Your task to perform on an android device: Show me popular games on the Play Store Image 0: 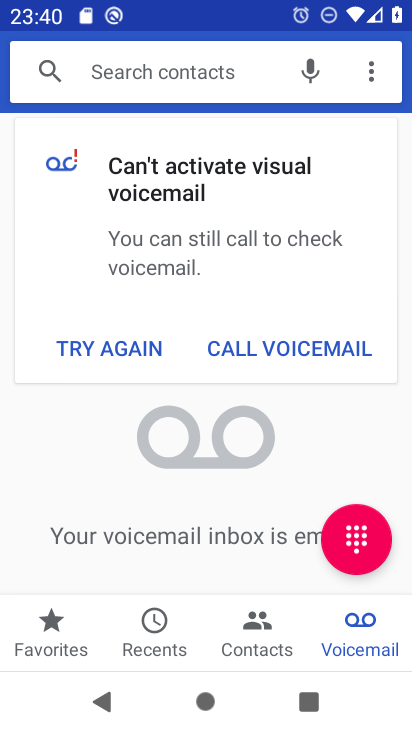
Step 0: press home button
Your task to perform on an android device: Show me popular games on the Play Store Image 1: 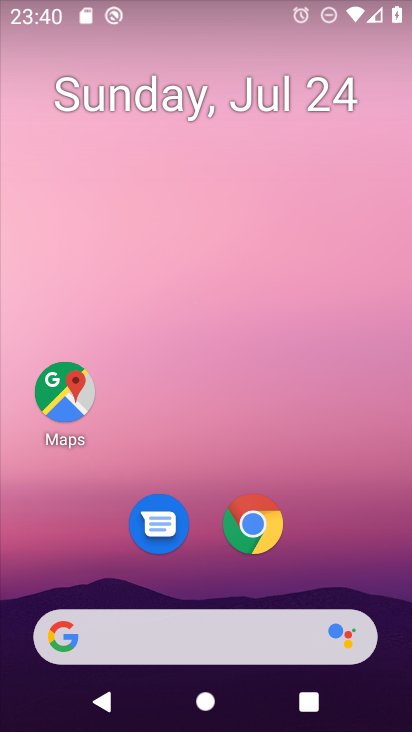
Step 1: drag from (157, 641) to (347, 60)
Your task to perform on an android device: Show me popular games on the Play Store Image 2: 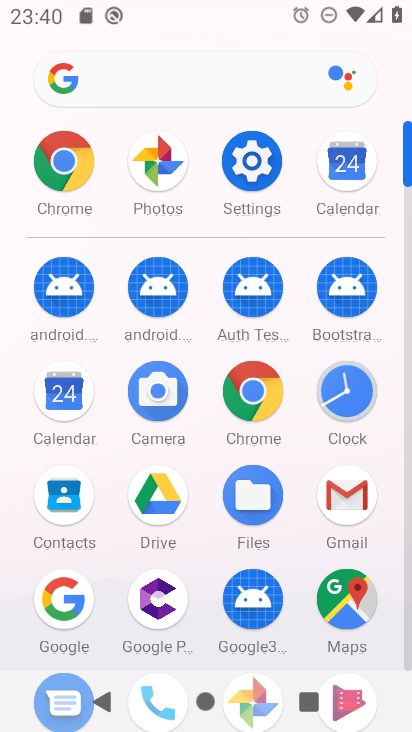
Step 2: drag from (206, 598) to (347, 140)
Your task to perform on an android device: Show me popular games on the Play Store Image 3: 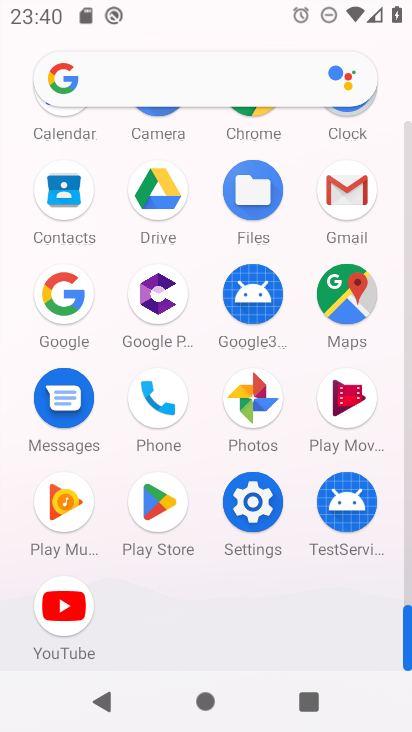
Step 3: click (153, 506)
Your task to perform on an android device: Show me popular games on the Play Store Image 4: 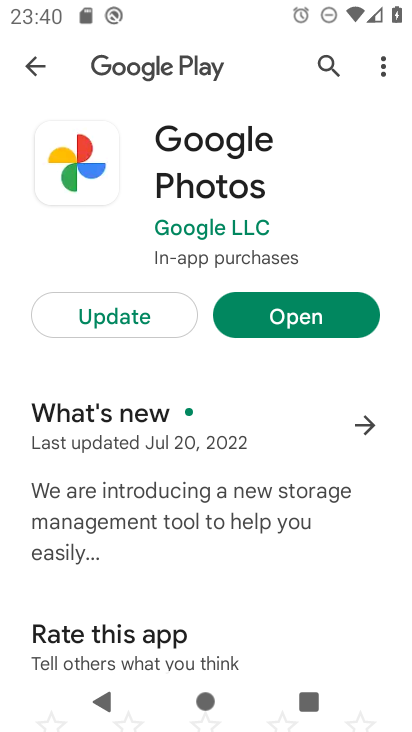
Step 4: click (34, 54)
Your task to perform on an android device: Show me popular games on the Play Store Image 5: 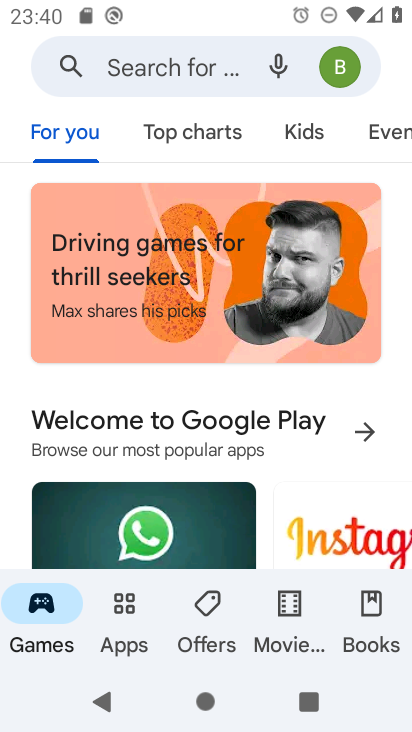
Step 5: drag from (236, 523) to (343, 11)
Your task to perform on an android device: Show me popular games on the Play Store Image 6: 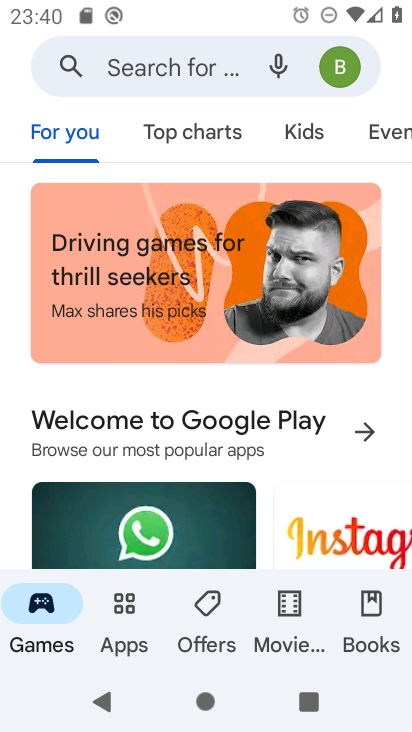
Step 6: drag from (303, 454) to (368, 15)
Your task to perform on an android device: Show me popular games on the Play Store Image 7: 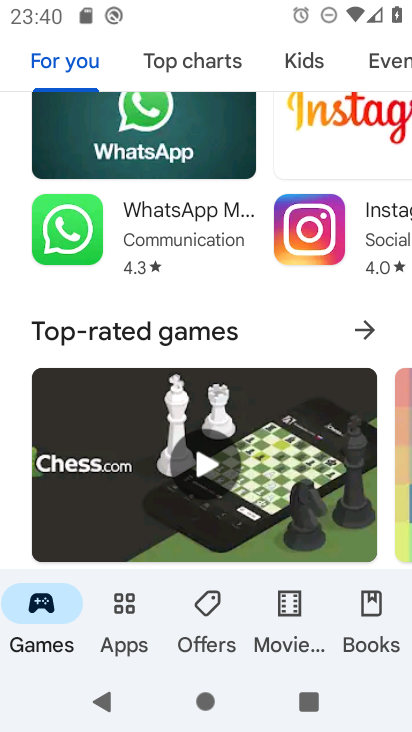
Step 7: drag from (276, 346) to (355, 3)
Your task to perform on an android device: Show me popular games on the Play Store Image 8: 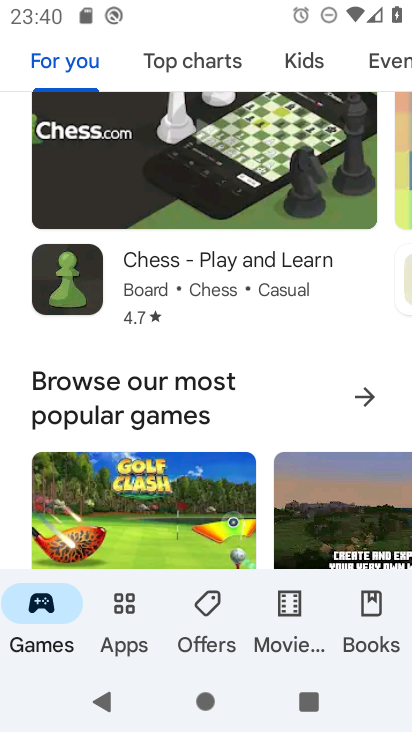
Step 8: click (369, 400)
Your task to perform on an android device: Show me popular games on the Play Store Image 9: 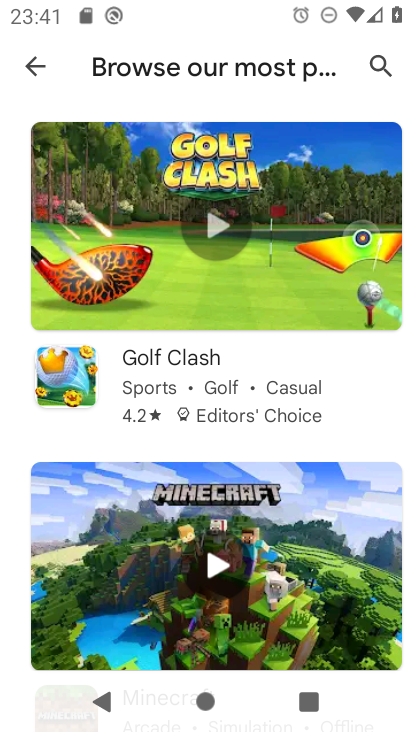
Step 9: task complete